Your task to perform on an android device: Search for vegetarian restaurants on Maps Image 0: 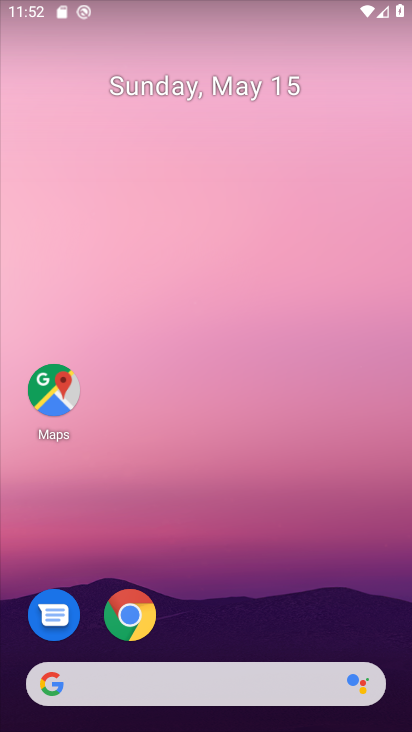
Step 0: drag from (337, 564) to (299, 194)
Your task to perform on an android device: Search for vegetarian restaurants on Maps Image 1: 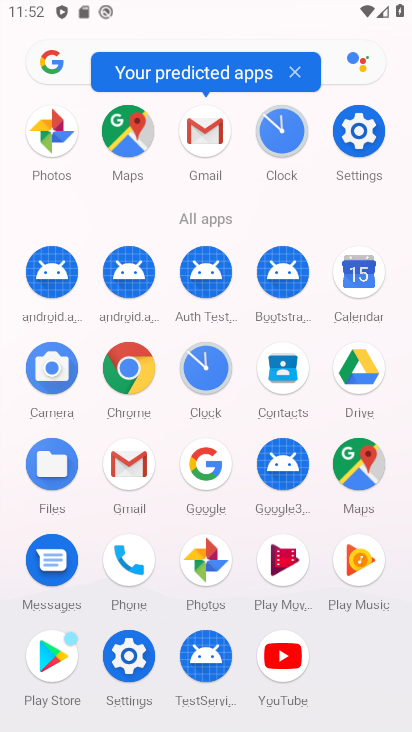
Step 1: click (384, 471)
Your task to perform on an android device: Search for vegetarian restaurants on Maps Image 2: 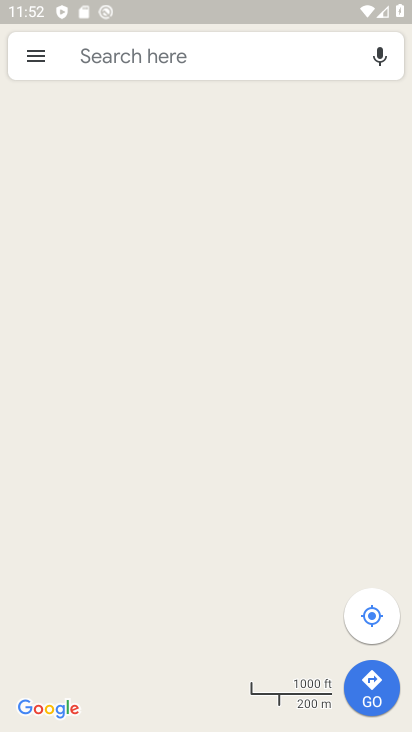
Step 2: click (165, 57)
Your task to perform on an android device: Search for vegetarian restaurants on Maps Image 3: 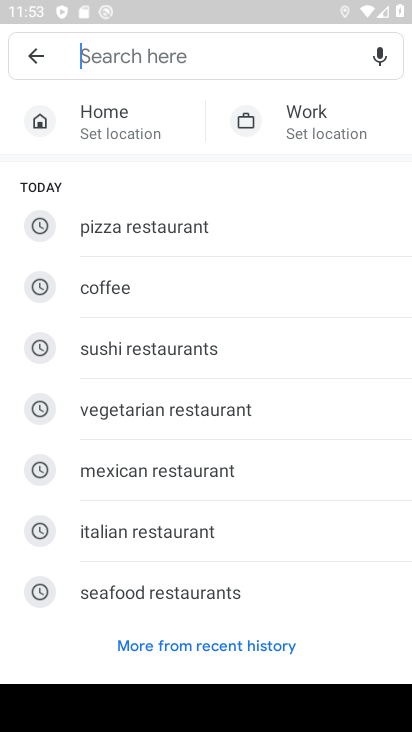
Step 3: type "vegetrain restaurants "
Your task to perform on an android device: Search for vegetarian restaurants on Maps Image 4: 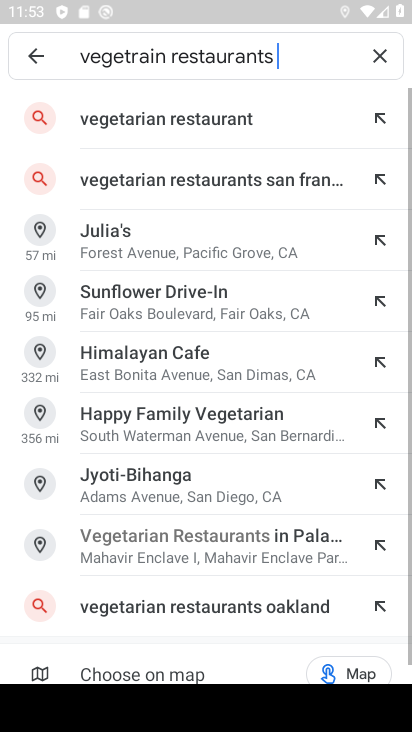
Step 4: click (224, 117)
Your task to perform on an android device: Search for vegetarian restaurants on Maps Image 5: 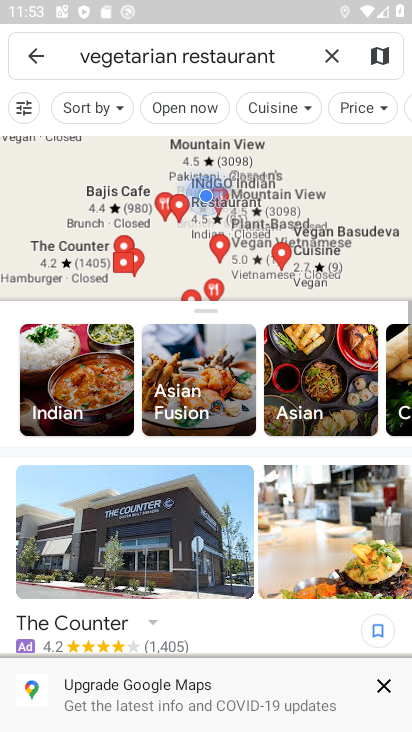
Step 5: task complete